Your task to perform on an android device: What is the news today? Image 0: 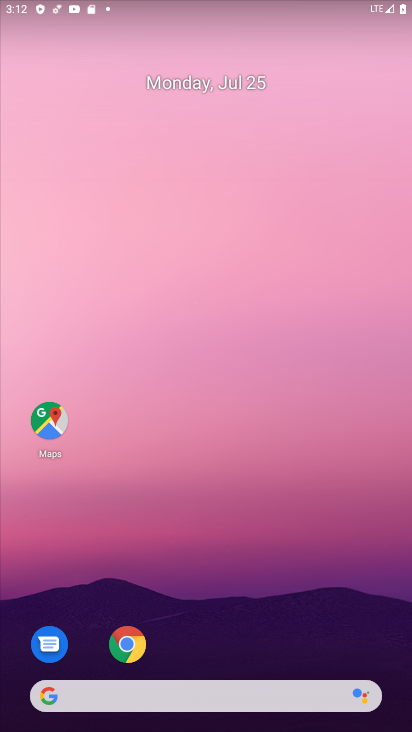
Step 0: drag from (262, 625) to (193, 225)
Your task to perform on an android device: What is the news today? Image 1: 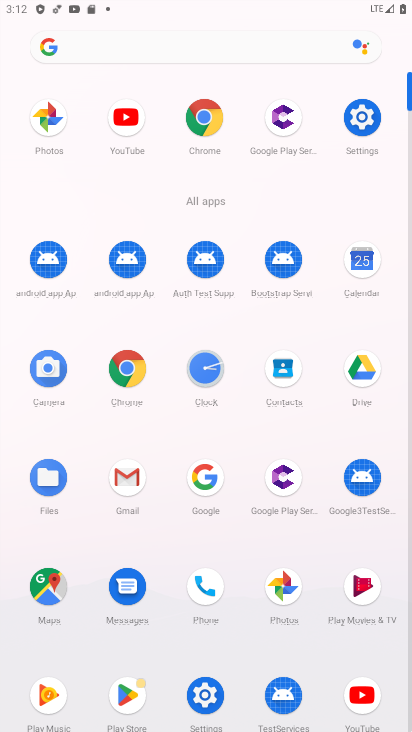
Step 1: click (137, 380)
Your task to perform on an android device: What is the news today? Image 2: 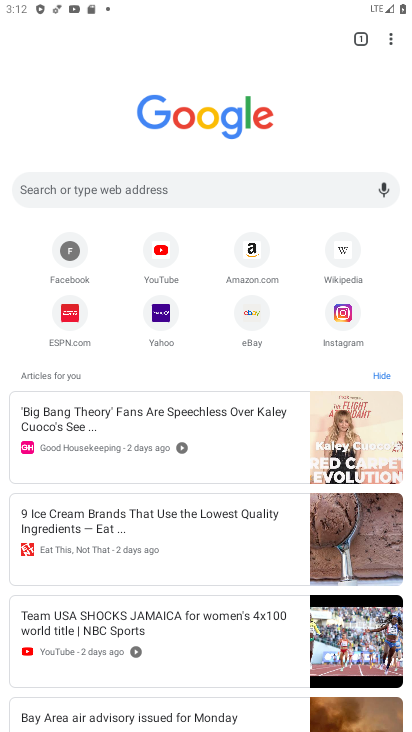
Step 2: click (223, 174)
Your task to perform on an android device: What is the news today? Image 3: 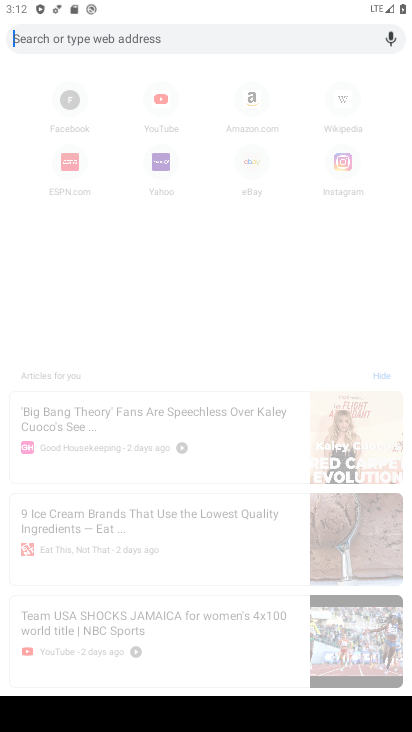
Step 3: type "What is the news today?"
Your task to perform on an android device: What is the news today? Image 4: 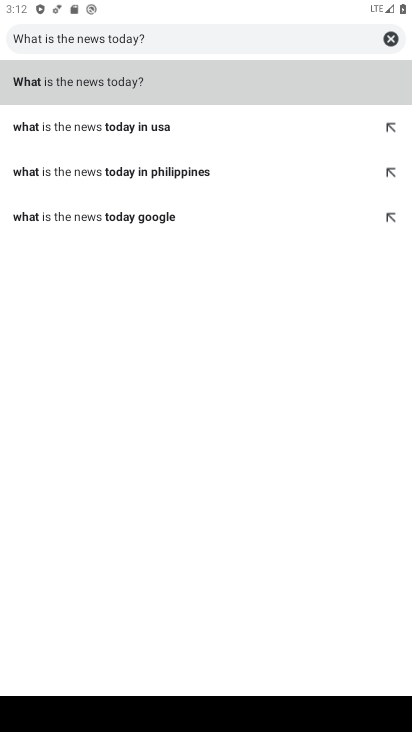
Step 4: click (172, 85)
Your task to perform on an android device: What is the news today? Image 5: 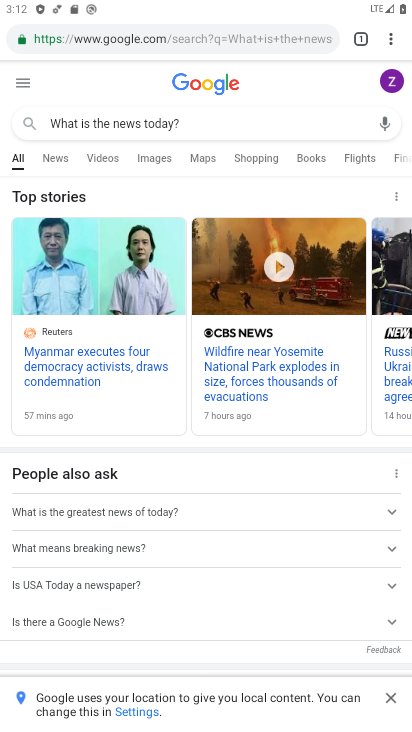
Step 5: task complete